Your task to perform on an android device: What's on my calendar today? Image 0: 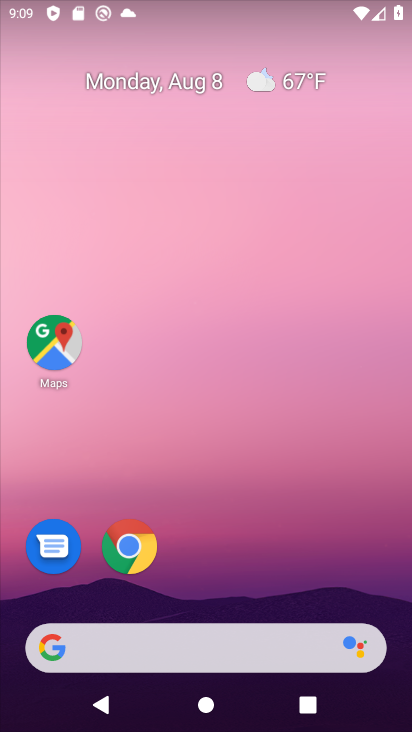
Step 0: drag from (296, 422) to (312, 209)
Your task to perform on an android device: What's on my calendar today? Image 1: 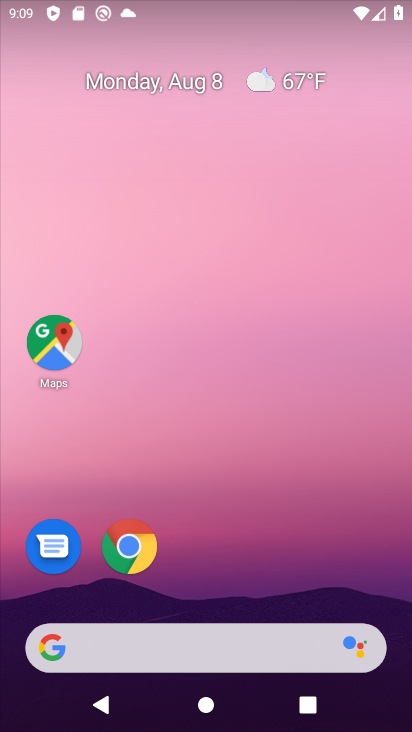
Step 1: drag from (231, 569) to (264, 255)
Your task to perform on an android device: What's on my calendar today? Image 2: 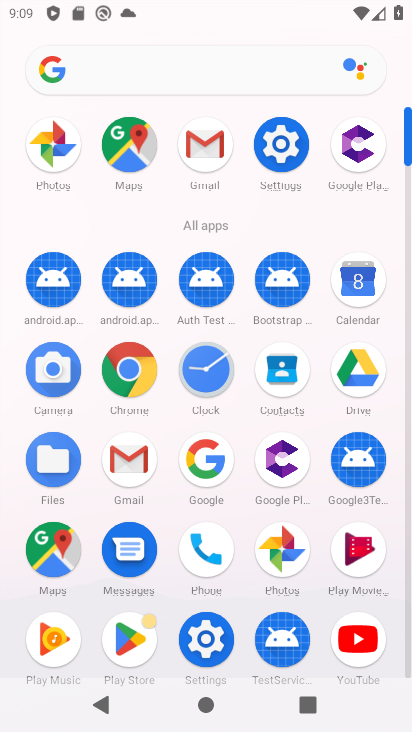
Step 2: click (362, 287)
Your task to perform on an android device: What's on my calendar today? Image 3: 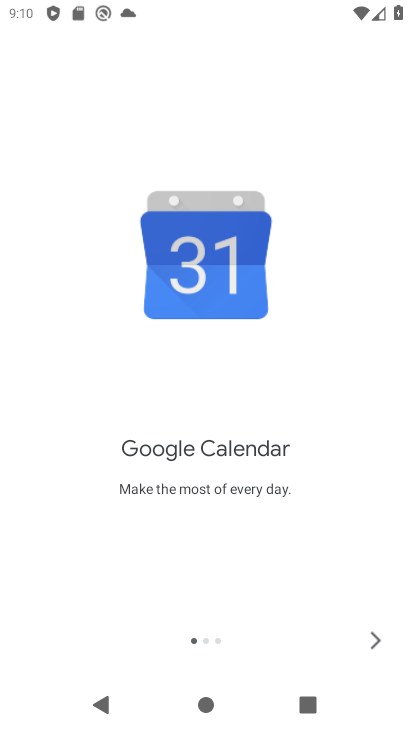
Step 3: click (369, 639)
Your task to perform on an android device: What's on my calendar today? Image 4: 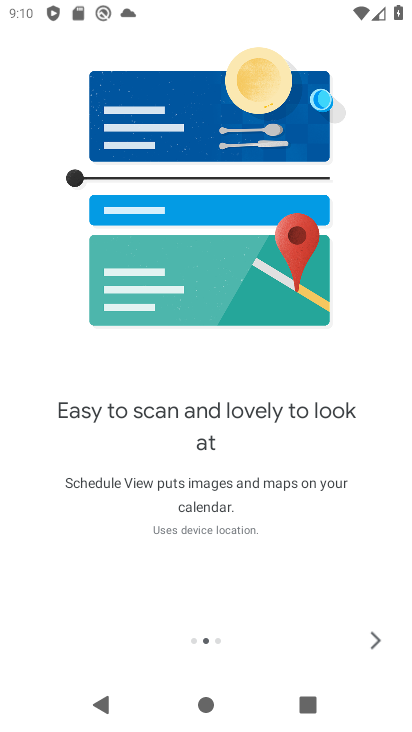
Step 4: click (369, 638)
Your task to perform on an android device: What's on my calendar today? Image 5: 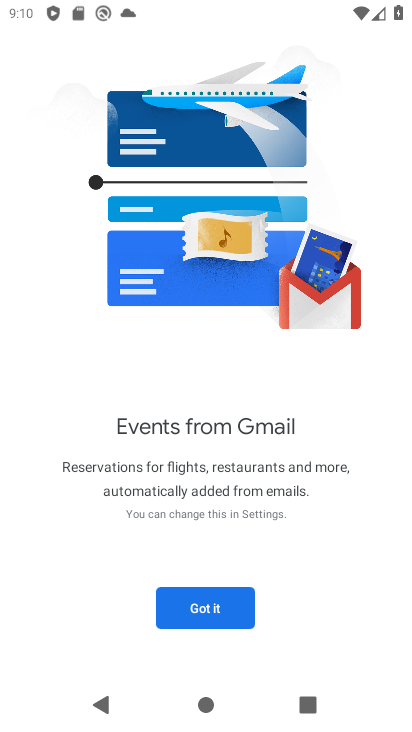
Step 5: click (369, 638)
Your task to perform on an android device: What's on my calendar today? Image 6: 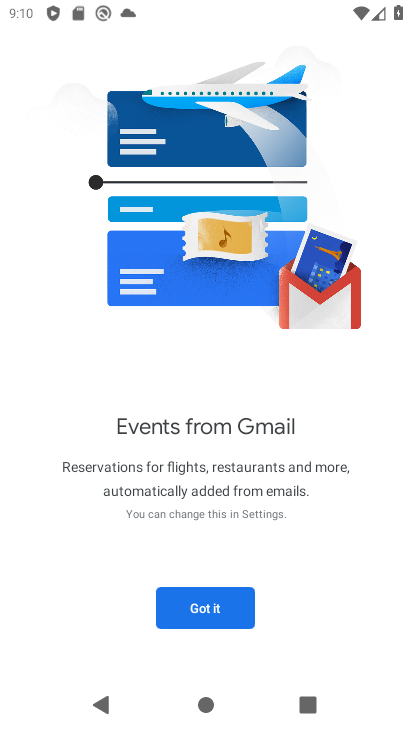
Step 6: click (230, 616)
Your task to perform on an android device: What's on my calendar today? Image 7: 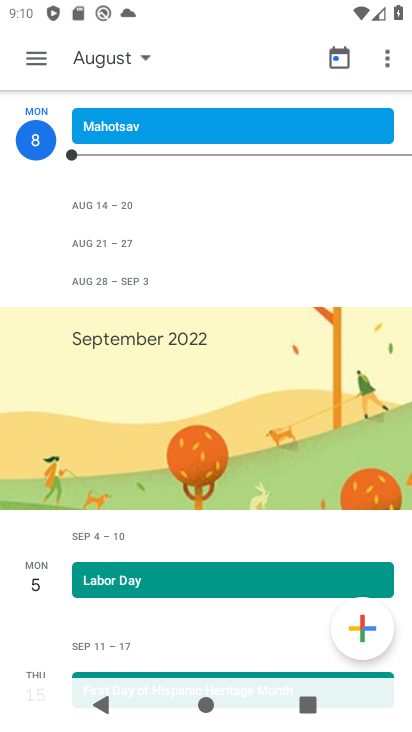
Step 7: task complete